Your task to perform on an android device: add a contact Image 0: 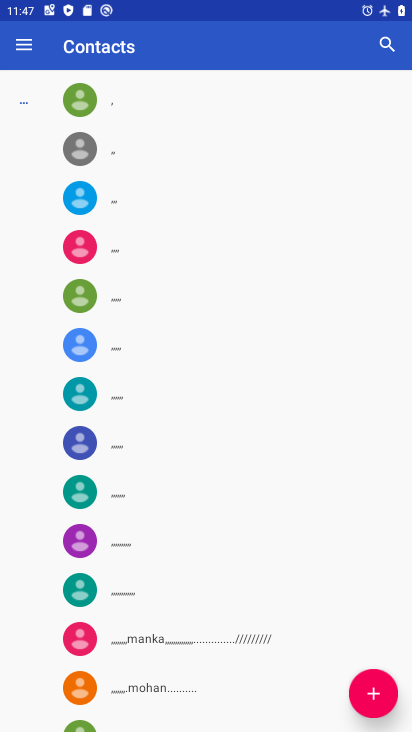
Step 0: click (369, 699)
Your task to perform on an android device: add a contact Image 1: 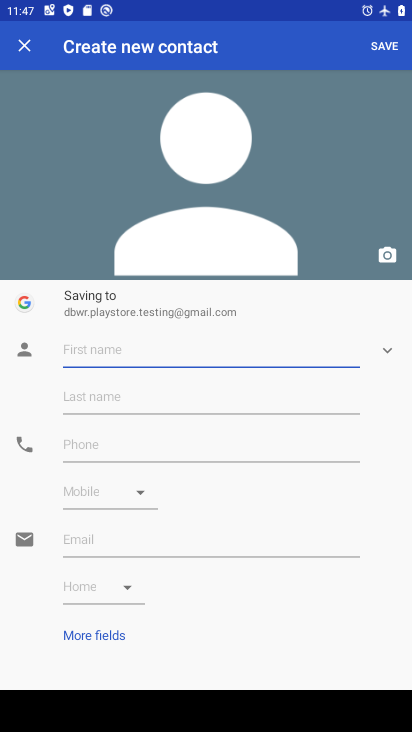
Step 1: type "jhkshdk"
Your task to perform on an android device: add a contact Image 2: 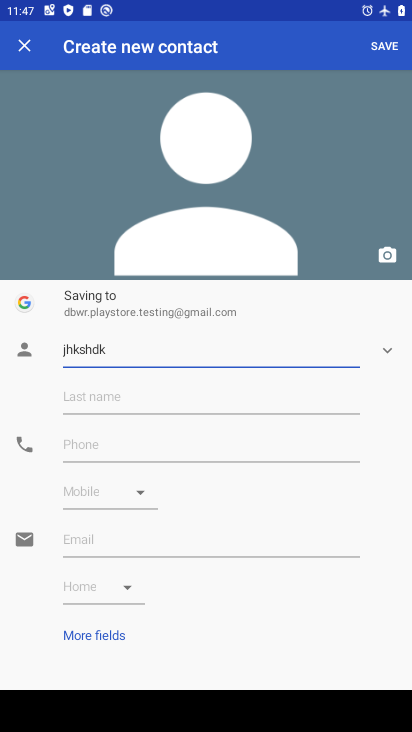
Step 2: click (101, 445)
Your task to perform on an android device: add a contact Image 3: 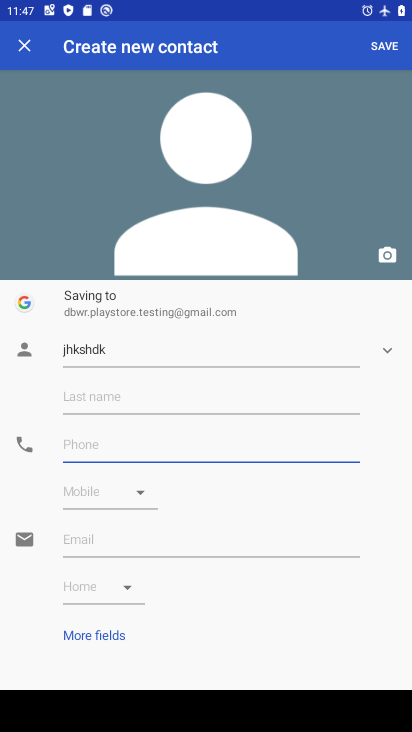
Step 3: click (149, 465)
Your task to perform on an android device: add a contact Image 4: 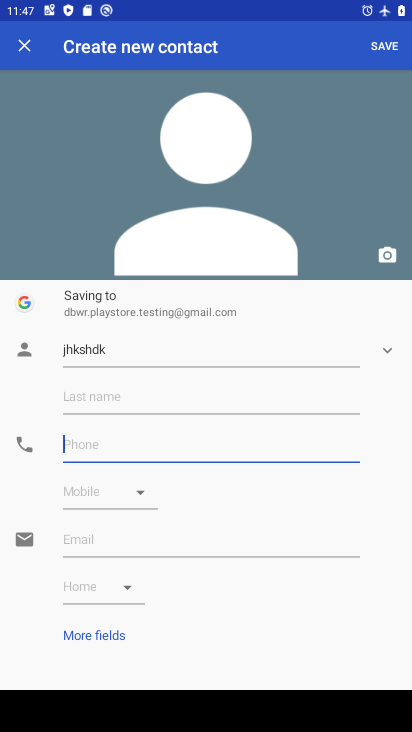
Step 4: type "9817263428"
Your task to perform on an android device: add a contact Image 5: 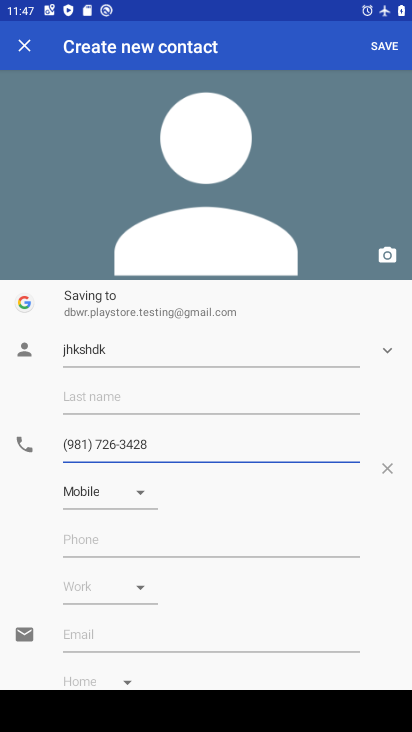
Step 5: click (396, 49)
Your task to perform on an android device: add a contact Image 6: 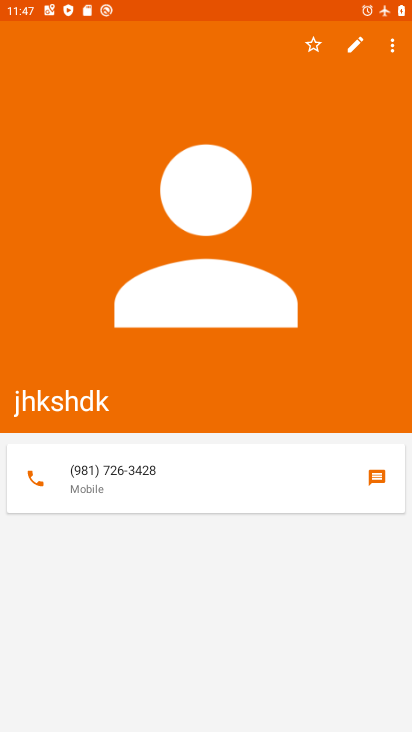
Step 6: task complete